Your task to perform on an android device: allow notifications from all sites in the chrome app Image 0: 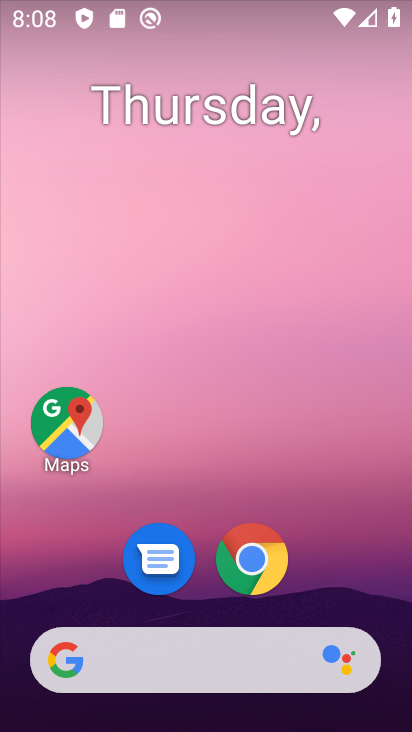
Step 0: click (236, 590)
Your task to perform on an android device: allow notifications from all sites in the chrome app Image 1: 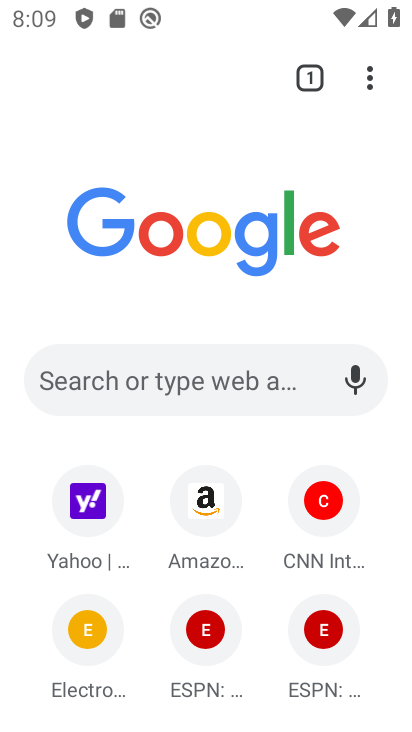
Step 1: drag from (370, 72) to (127, 617)
Your task to perform on an android device: allow notifications from all sites in the chrome app Image 2: 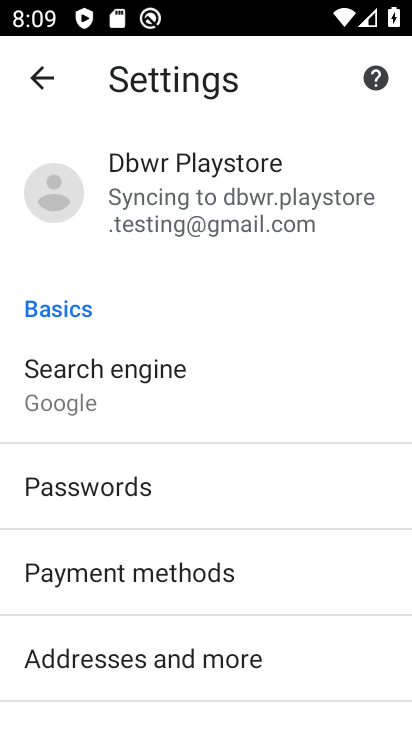
Step 2: drag from (109, 631) to (97, 142)
Your task to perform on an android device: allow notifications from all sites in the chrome app Image 3: 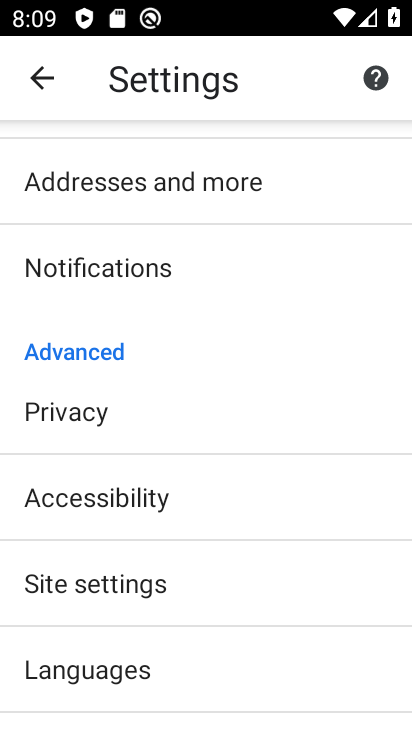
Step 3: click (149, 588)
Your task to perform on an android device: allow notifications from all sites in the chrome app Image 4: 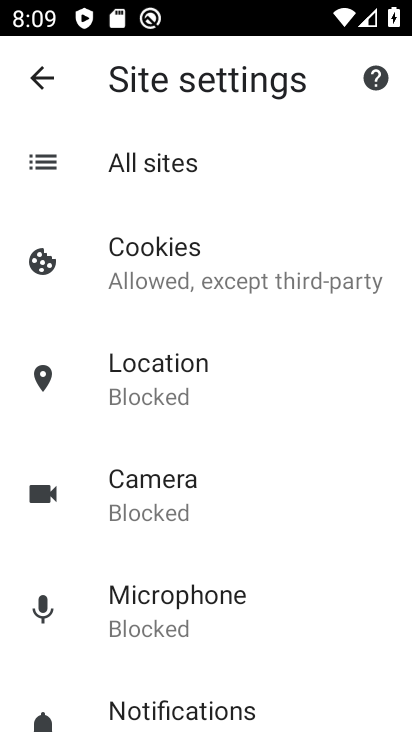
Step 4: click (174, 704)
Your task to perform on an android device: allow notifications from all sites in the chrome app Image 5: 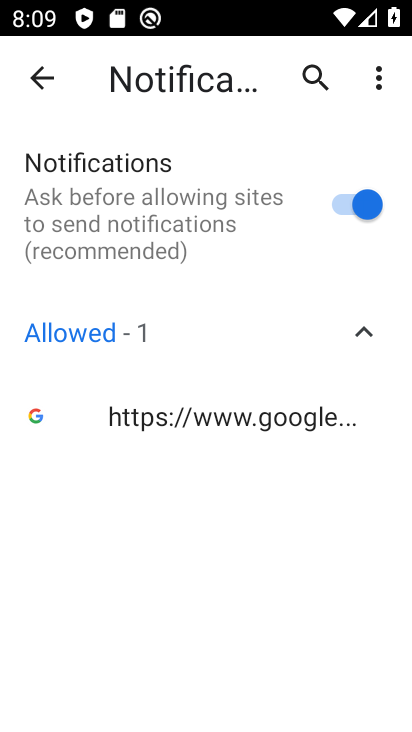
Step 5: task complete